Your task to perform on an android device: Go to internet settings Image 0: 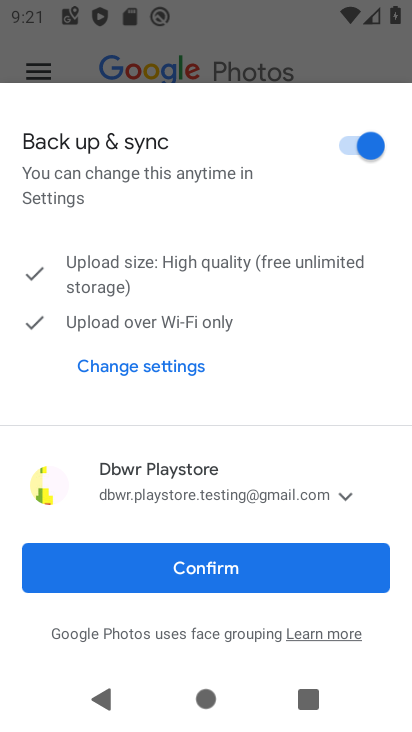
Step 0: press home button
Your task to perform on an android device: Go to internet settings Image 1: 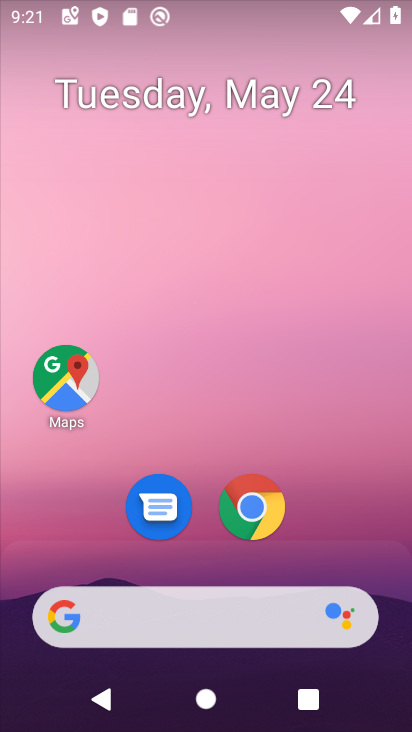
Step 1: drag from (81, 584) to (187, 108)
Your task to perform on an android device: Go to internet settings Image 2: 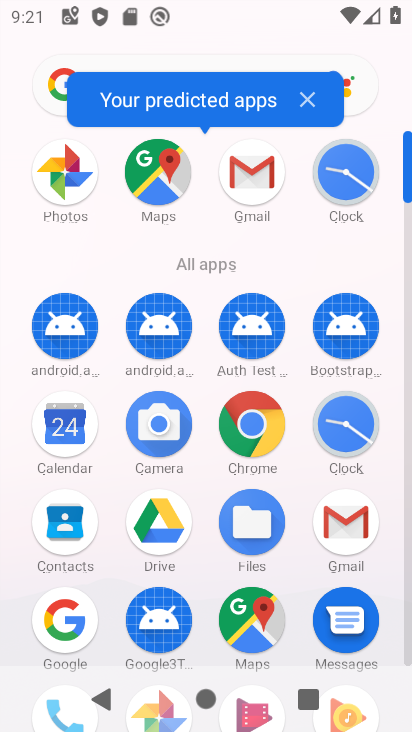
Step 2: drag from (200, 618) to (257, 390)
Your task to perform on an android device: Go to internet settings Image 3: 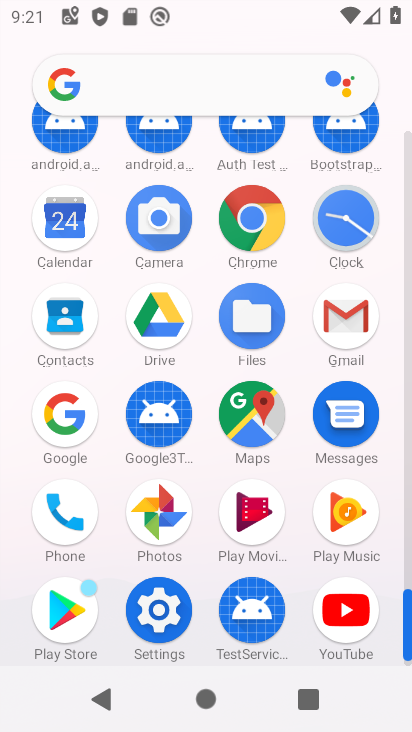
Step 3: click (166, 604)
Your task to perform on an android device: Go to internet settings Image 4: 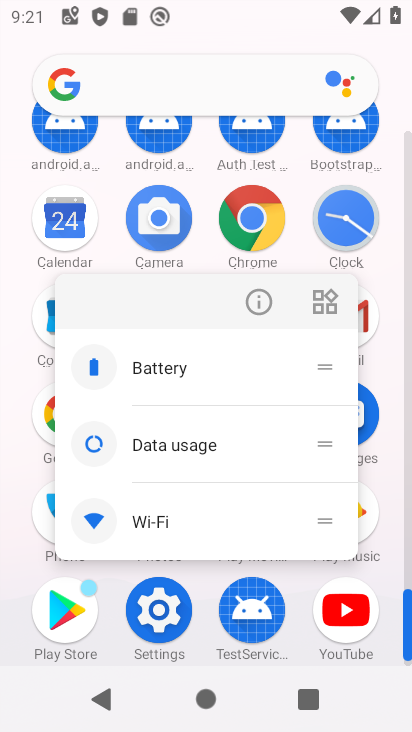
Step 4: click (170, 612)
Your task to perform on an android device: Go to internet settings Image 5: 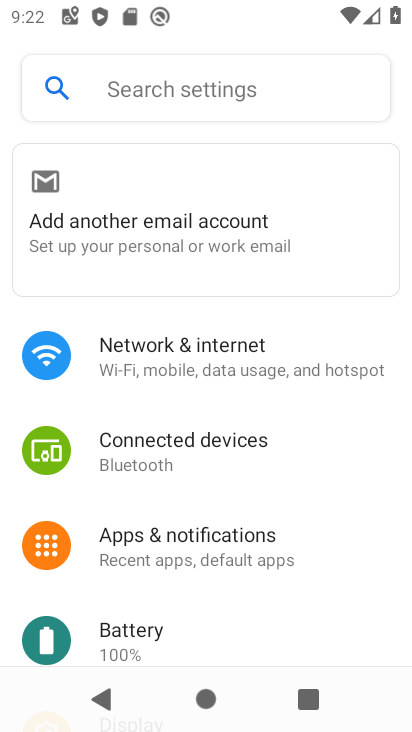
Step 5: click (303, 383)
Your task to perform on an android device: Go to internet settings Image 6: 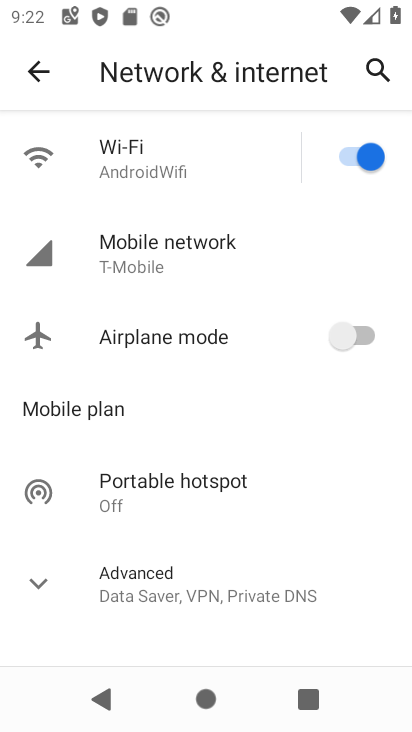
Step 6: click (224, 260)
Your task to perform on an android device: Go to internet settings Image 7: 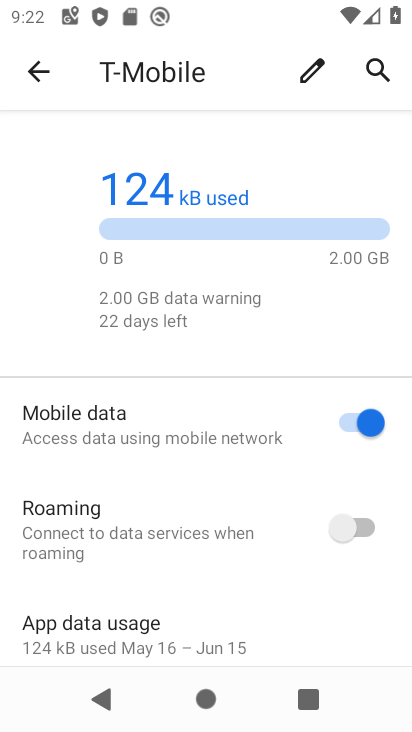
Step 7: task complete